Your task to perform on an android device: Open settings on Google Maps Image 0: 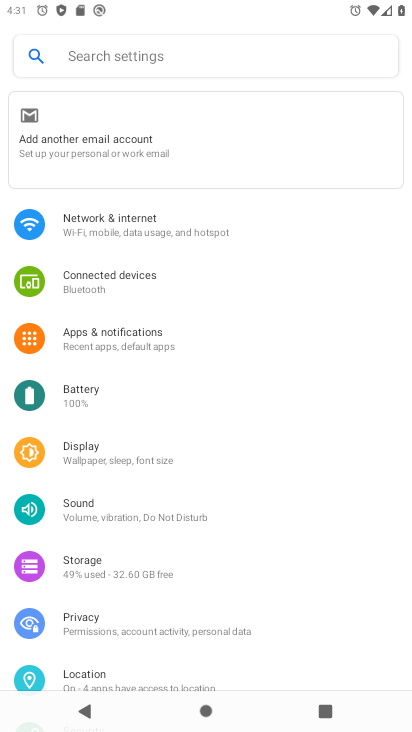
Step 0: press home button
Your task to perform on an android device: Open settings on Google Maps Image 1: 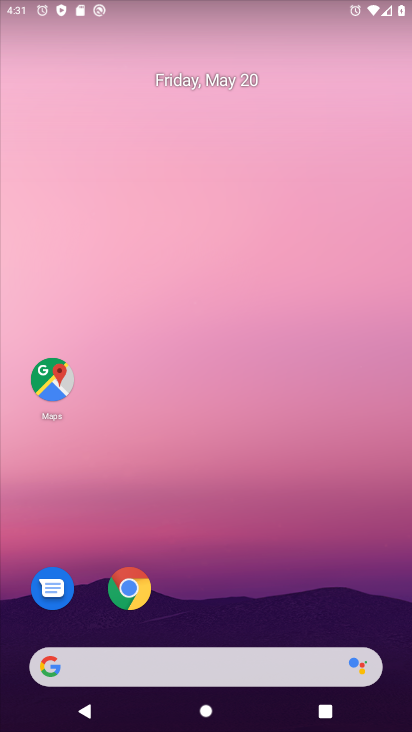
Step 1: click (44, 368)
Your task to perform on an android device: Open settings on Google Maps Image 2: 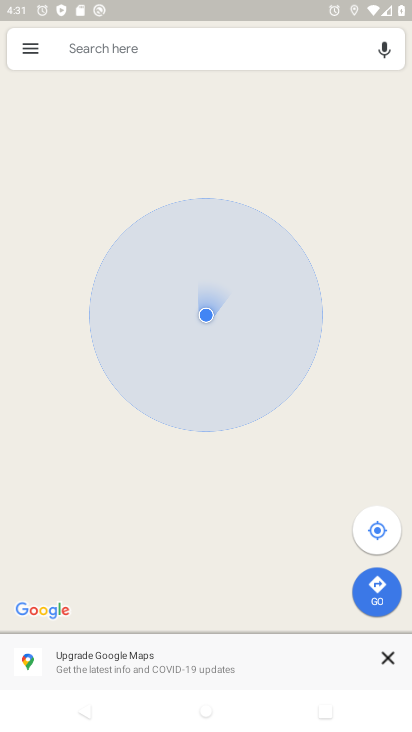
Step 2: click (31, 40)
Your task to perform on an android device: Open settings on Google Maps Image 3: 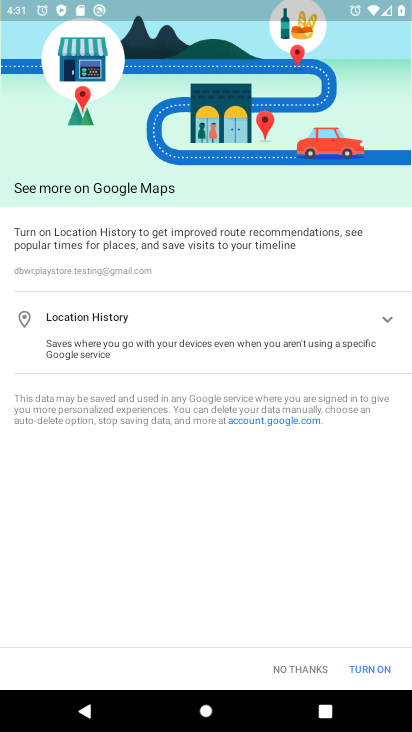
Step 3: click (315, 672)
Your task to perform on an android device: Open settings on Google Maps Image 4: 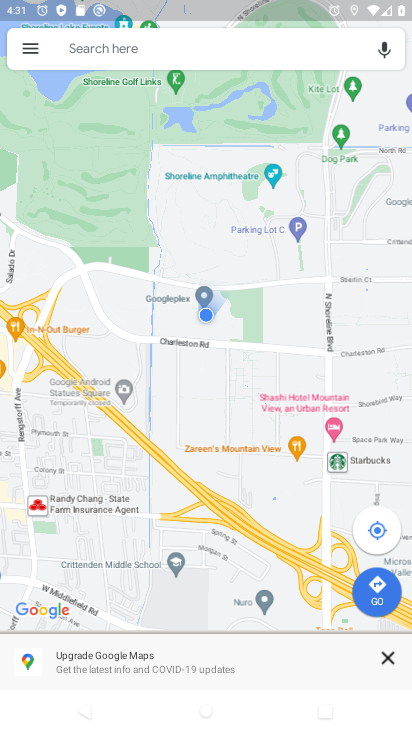
Step 4: click (29, 52)
Your task to perform on an android device: Open settings on Google Maps Image 5: 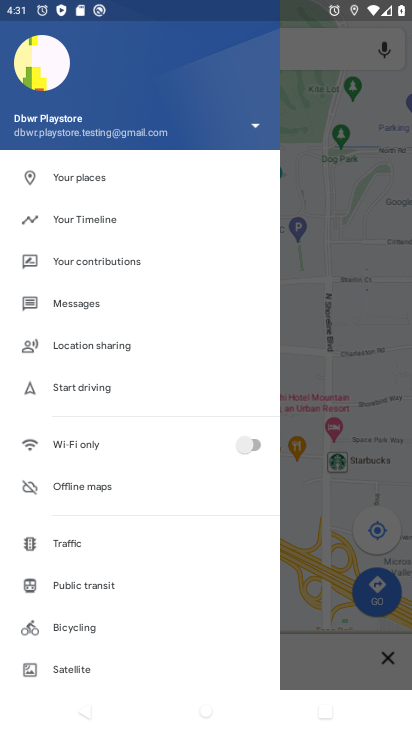
Step 5: drag from (130, 619) to (154, 374)
Your task to perform on an android device: Open settings on Google Maps Image 6: 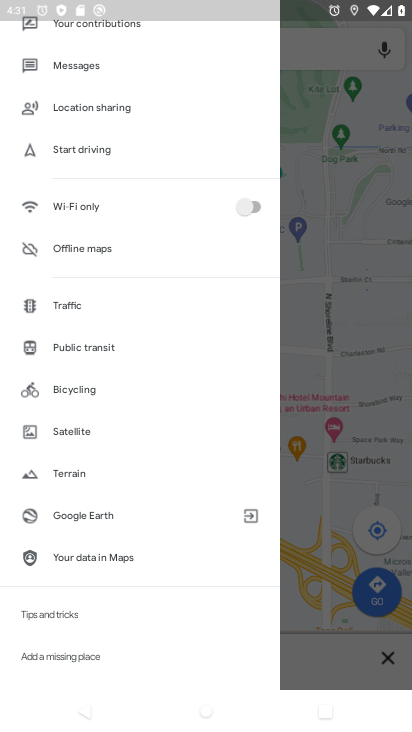
Step 6: drag from (135, 208) to (160, 185)
Your task to perform on an android device: Open settings on Google Maps Image 7: 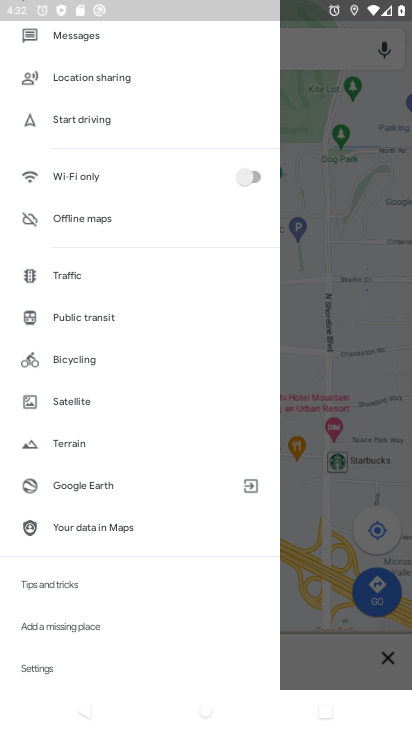
Step 7: drag from (131, 98) to (141, 408)
Your task to perform on an android device: Open settings on Google Maps Image 8: 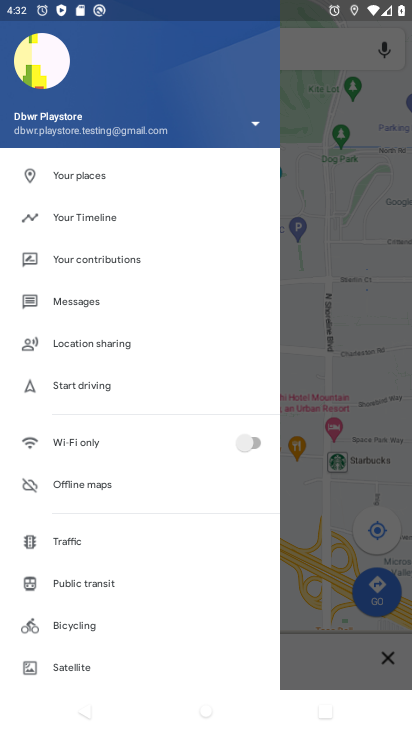
Step 8: drag from (117, 568) to (120, 334)
Your task to perform on an android device: Open settings on Google Maps Image 9: 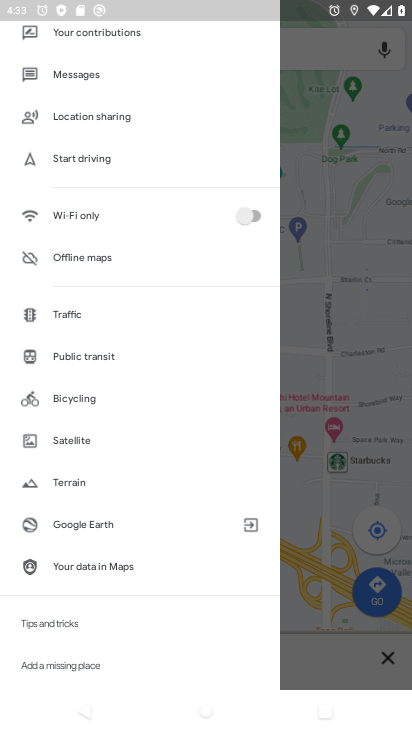
Step 9: drag from (107, 618) to (109, 374)
Your task to perform on an android device: Open settings on Google Maps Image 10: 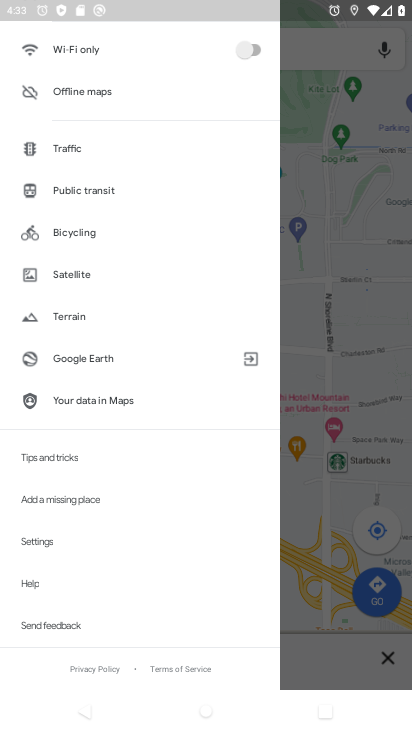
Step 10: click (38, 542)
Your task to perform on an android device: Open settings on Google Maps Image 11: 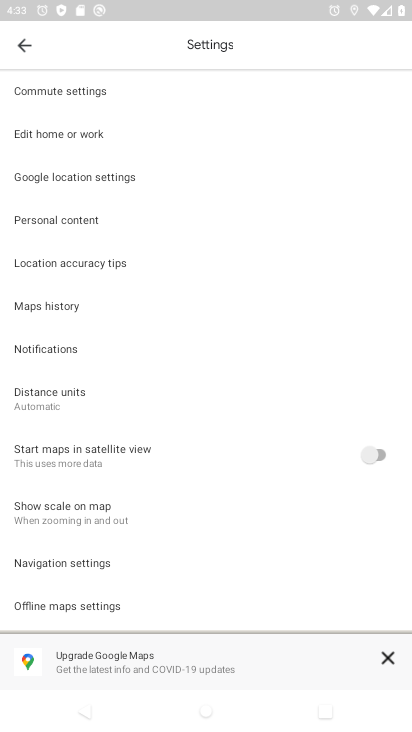
Step 11: task complete